Your task to perform on an android device: open a new tab in the chrome app Image 0: 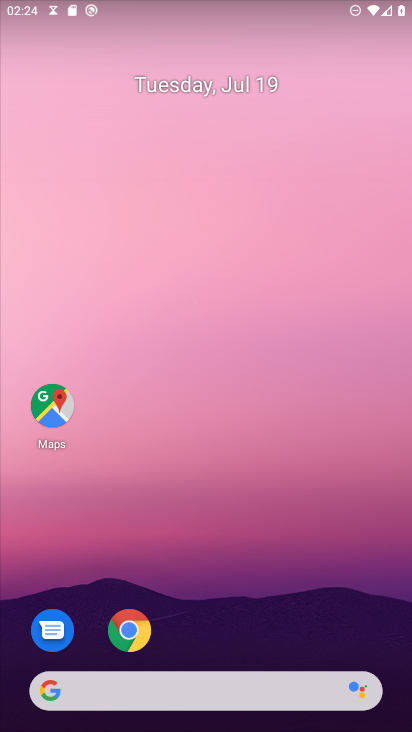
Step 0: press home button
Your task to perform on an android device: open a new tab in the chrome app Image 1: 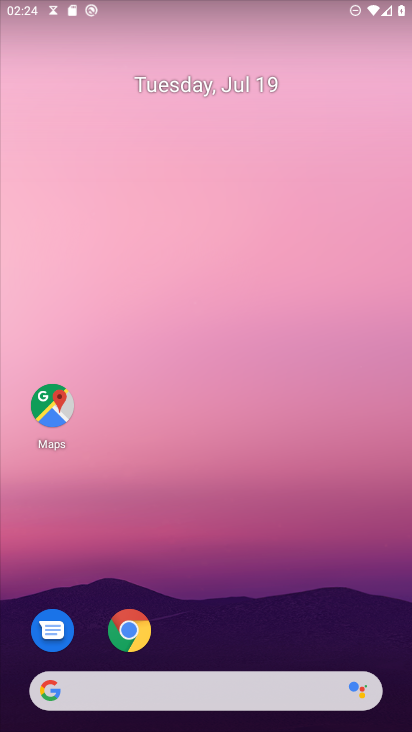
Step 1: click (129, 627)
Your task to perform on an android device: open a new tab in the chrome app Image 2: 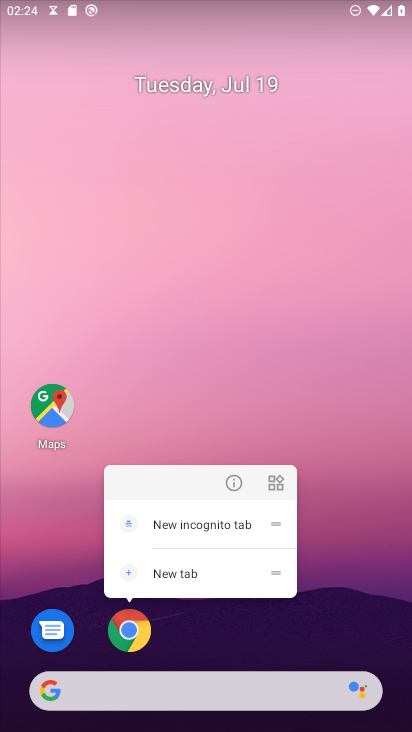
Step 2: click (129, 620)
Your task to perform on an android device: open a new tab in the chrome app Image 3: 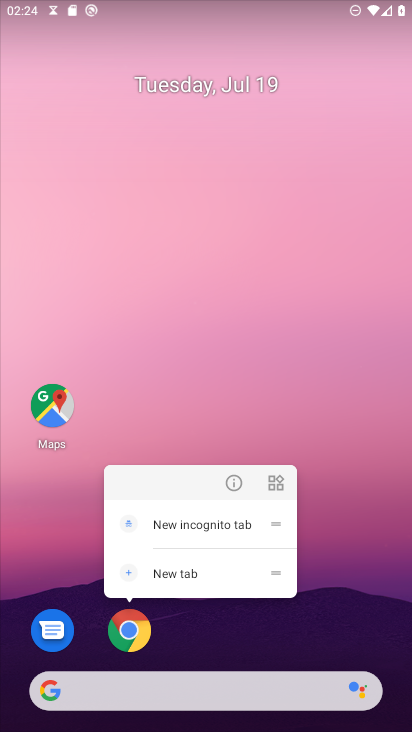
Step 3: click (129, 630)
Your task to perform on an android device: open a new tab in the chrome app Image 4: 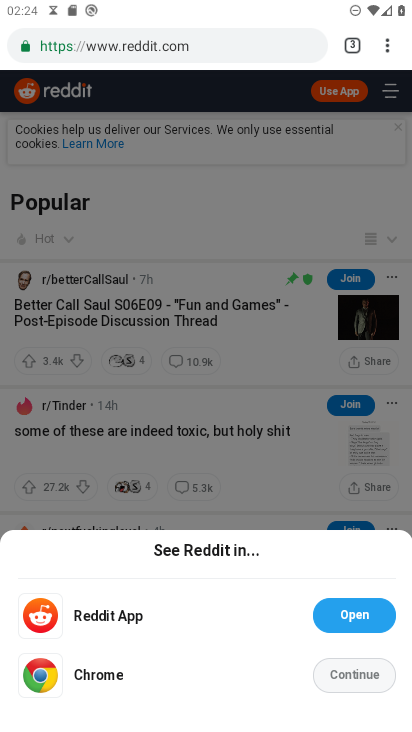
Step 4: task complete